Your task to perform on an android device: turn off airplane mode Image 0: 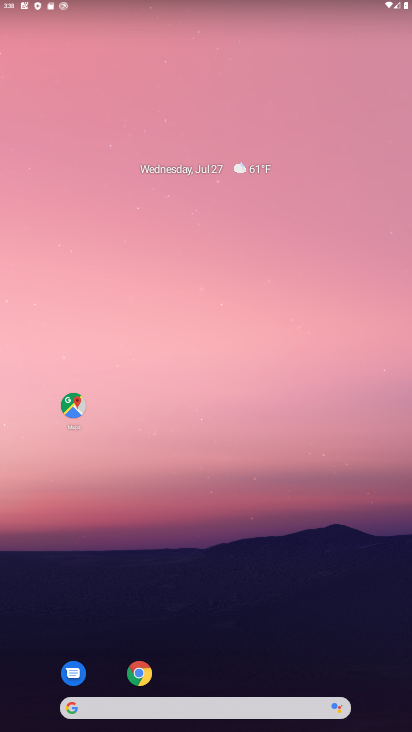
Step 0: drag from (348, 2) to (306, 535)
Your task to perform on an android device: turn off airplane mode Image 1: 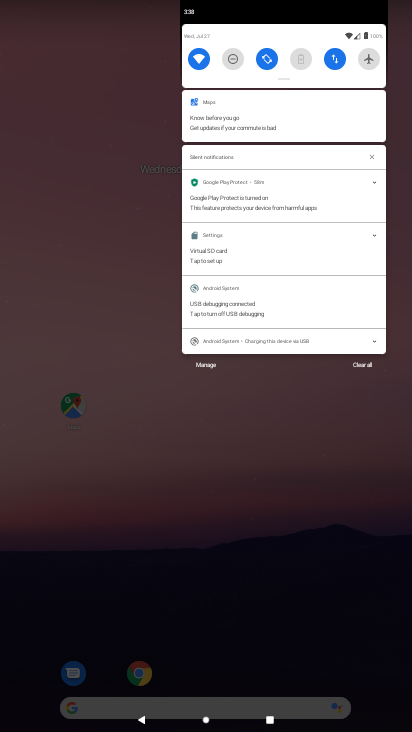
Step 1: task complete